Your task to perform on an android device: set the stopwatch Image 0: 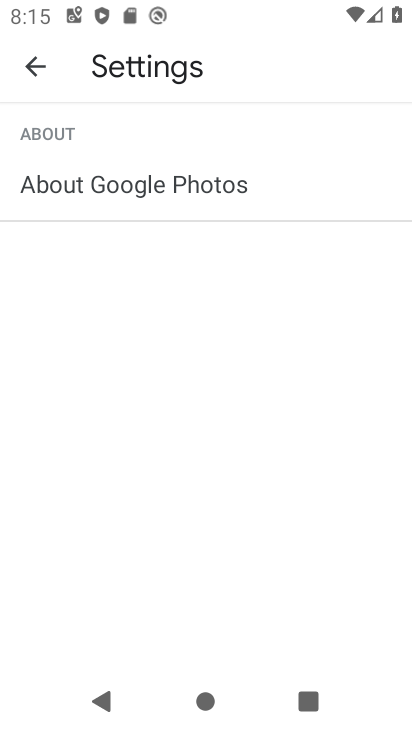
Step 0: press home button
Your task to perform on an android device: set the stopwatch Image 1: 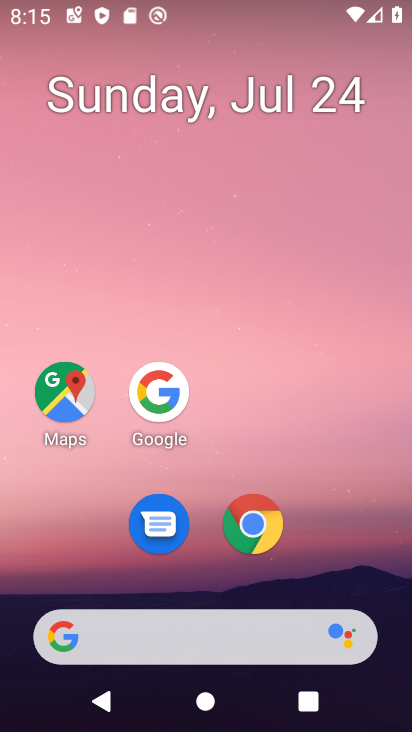
Step 1: drag from (207, 631) to (314, 136)
Your task to perform on an android device: set the stopwatch Image 2: 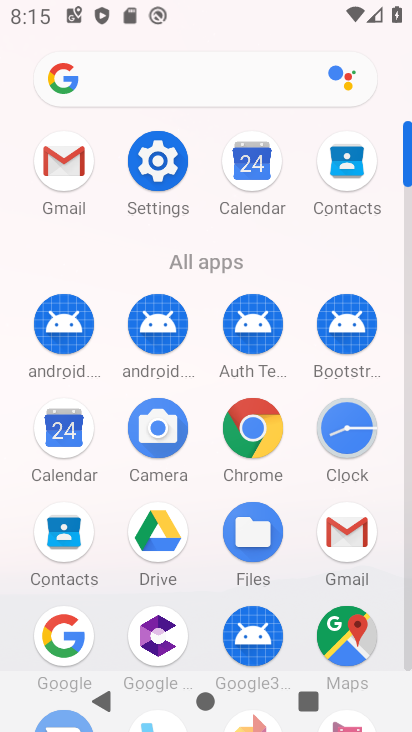
Step 2: click (349, 428)
Your task to perform on an android device: set the stopwatch Image 3: 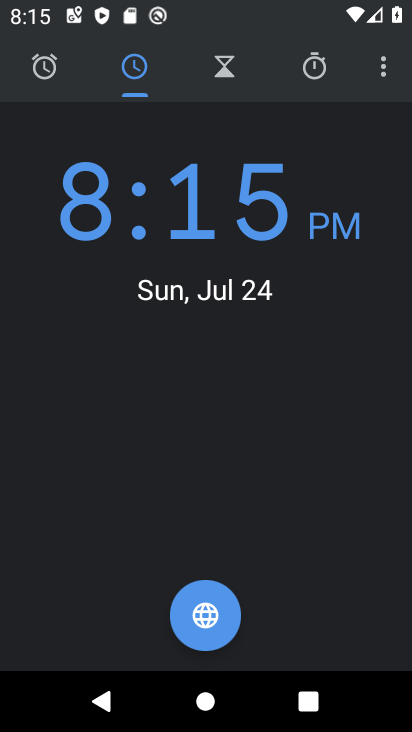
Step 3: click (307, 71)
Your task to perform on an android device: set the stopwatch Image 4: 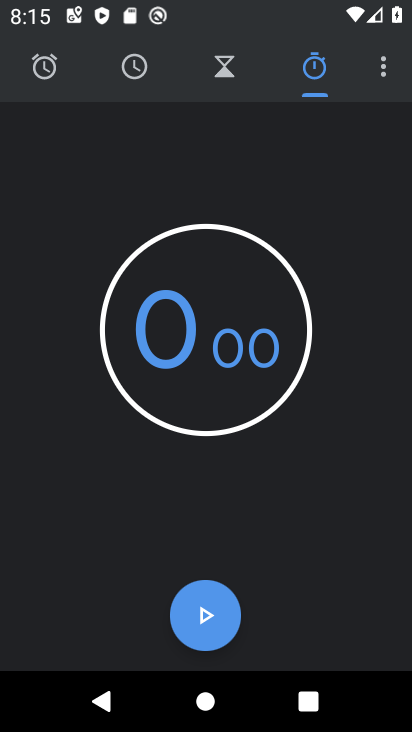
Step 4: click (193, 328)
Your task to perform on an android device: set the stopwatch Image 5: 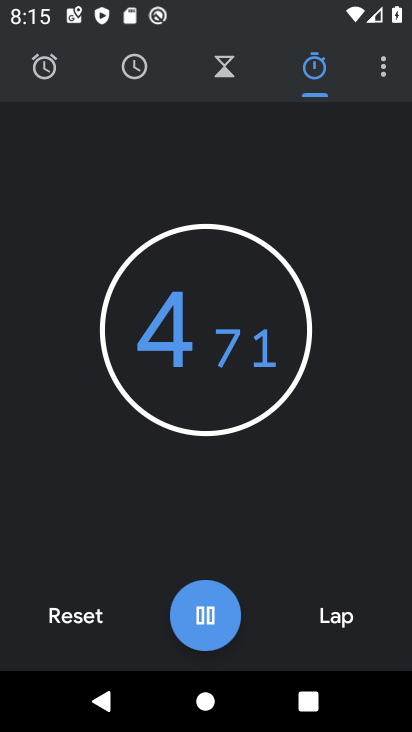
Step 5: click (220, 313)
Your task to perform on an android device: set the stopwatch Image 6: 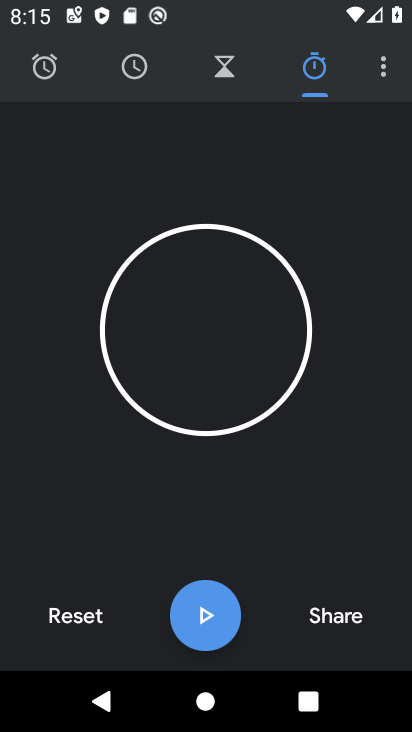
Step 6: task complete